Your task to perform on an android device: visit the assistant section in the google photos Image 0: 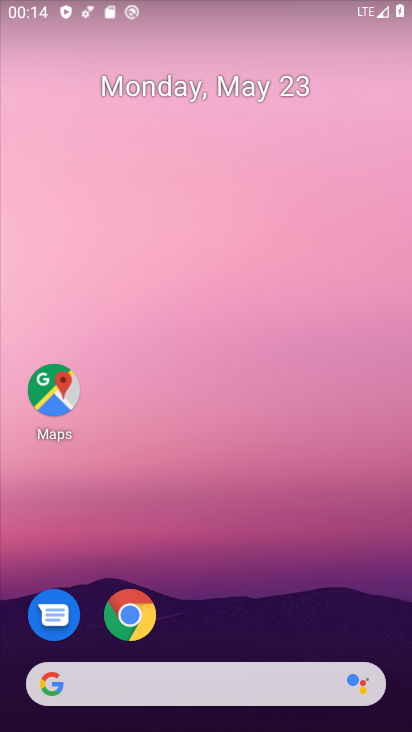
Step 0: drag from (254, 629) to (350, 110)
Your task to perform on an android device: visit the assistant section in the google photos Image 1: 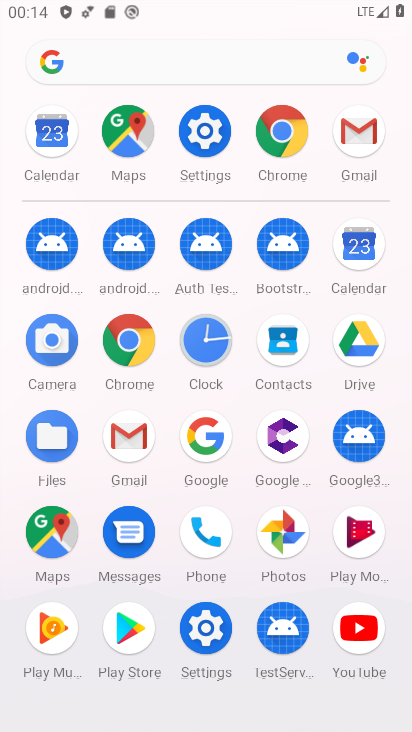
Step 1: click (266, 513)
Your task to perform on an android device: visit the assistant section in the google photos Image 2: 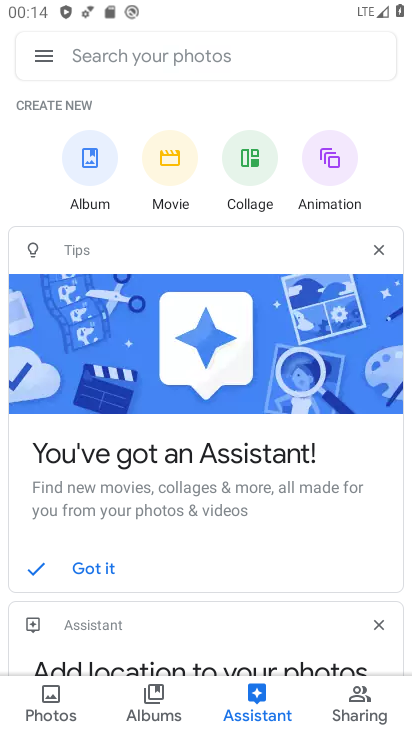
Step 2: task complete